Your task to perform on an android device: turn off notifications in google photos Image 0: 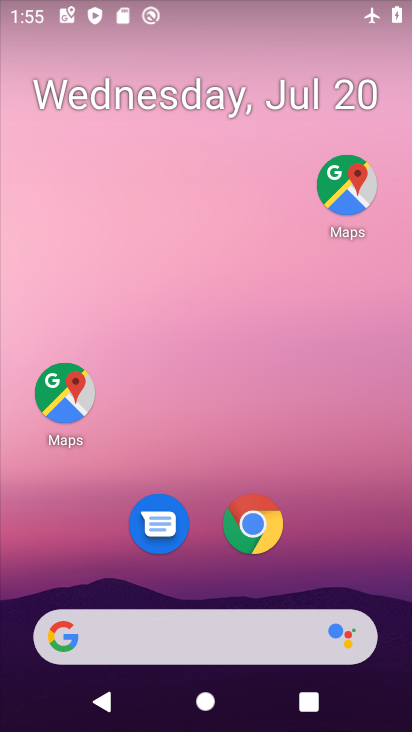
Step 0: drag from (323, 508) to (323, 32)
Your task to perform on an android device: turn off notifications in google photos Image 1: 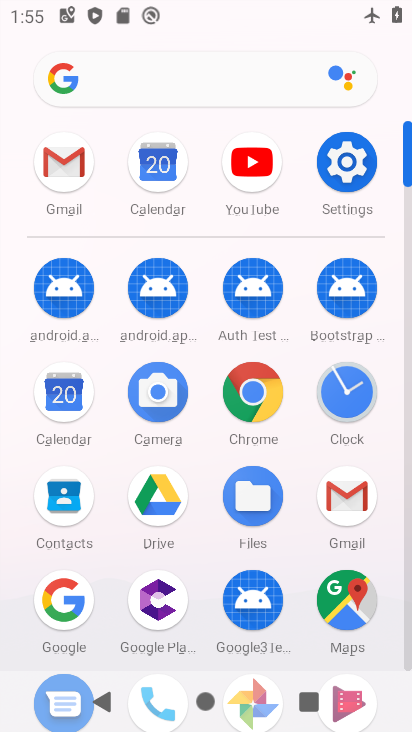
Step 1: drag from (199, 457) to (246, 153)
Your task to perform on an android device: turn off notifications in google photos Image 2: 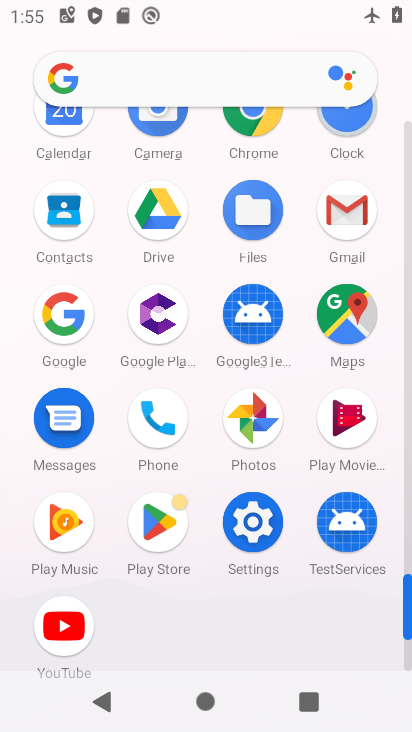
Step 2: click (255, 419)
Your task to perform on an android device: turn off notifications in google photos Image 3: 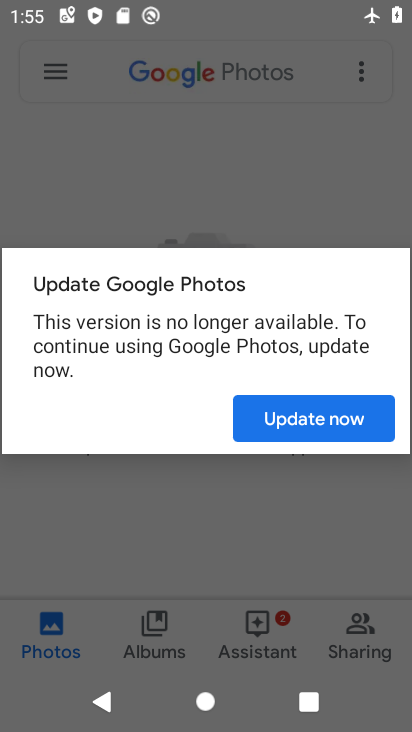
Step 3: click (255, 419)
Your task to perform on an android device: turn off notifications in google photos Image 4: 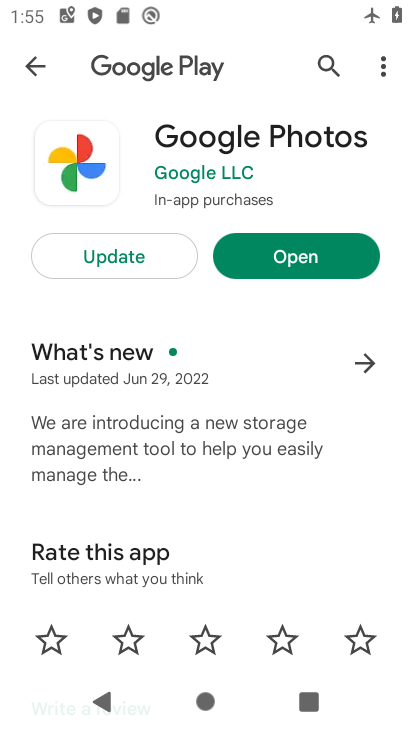
Step 4: click (337, 260)
Your task to perform on an android device: turn off notifications in google photos Image 5: 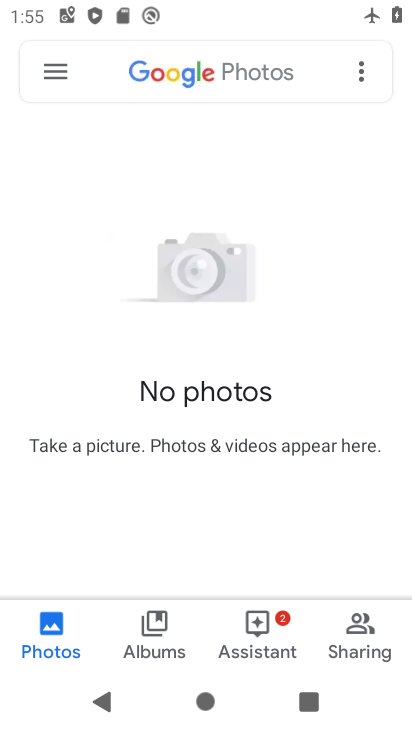
Step 5: click (56, 55)
Your task to perform on an android device: turn off notifications in google photos Image 6: 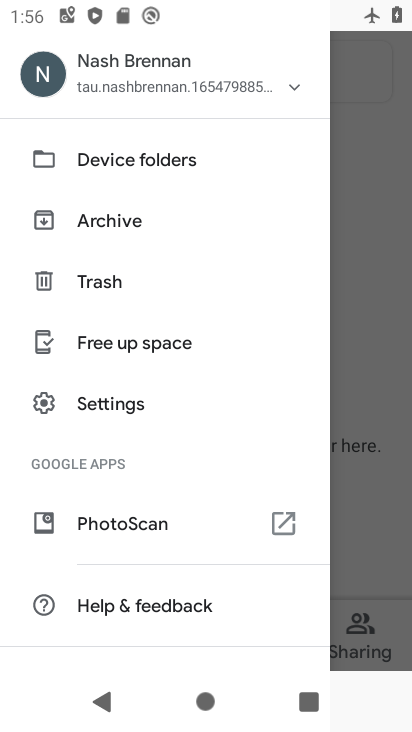
Step 6: click (113, 394)
Your task to perform on an android device: turn off notifications in google photos Image 7: 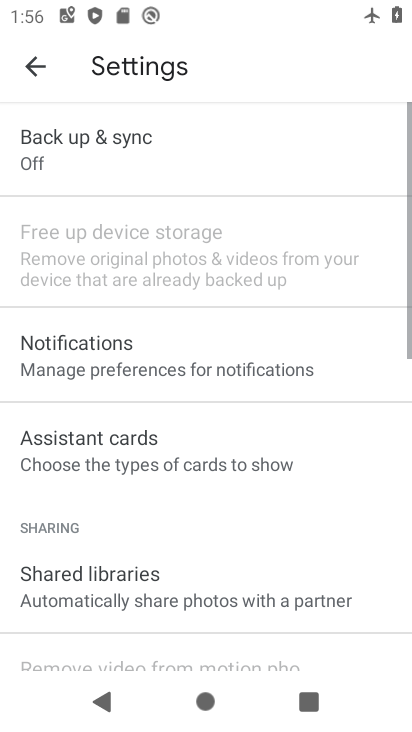
Step 7: click (193, 358)
Your task to perform on an android device: turn off notifications in google photos Image 8: 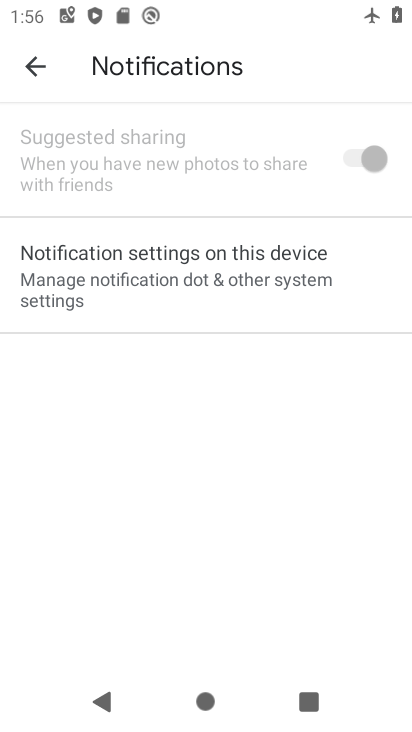
Step 8: click (296, 265)
Your task to perform on an android device: turn off notifications in google photos Image 9: 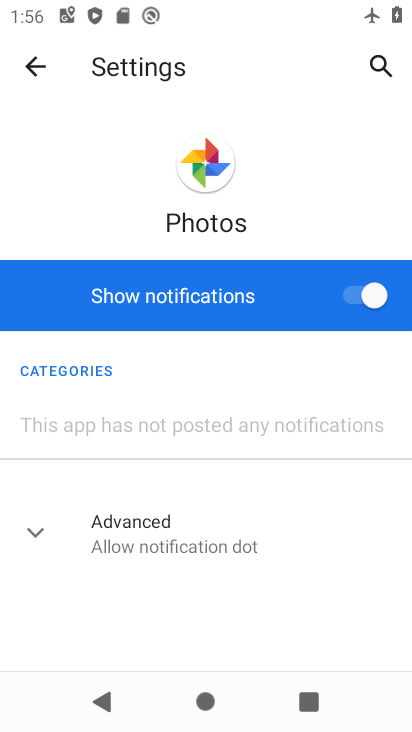
Step 9: click (367, 303)
Your task to perform on an android device: turn off notifications in google photos Image 10: 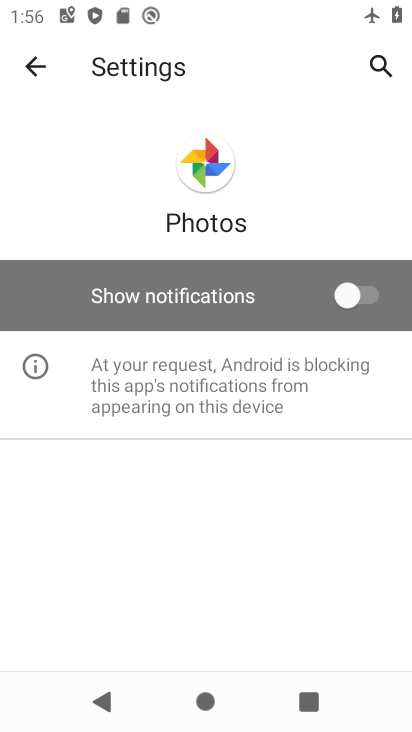
Step 10: task complete